Your task to perform on an android device: open app "eBay: The shopping marketplace" Image 0: 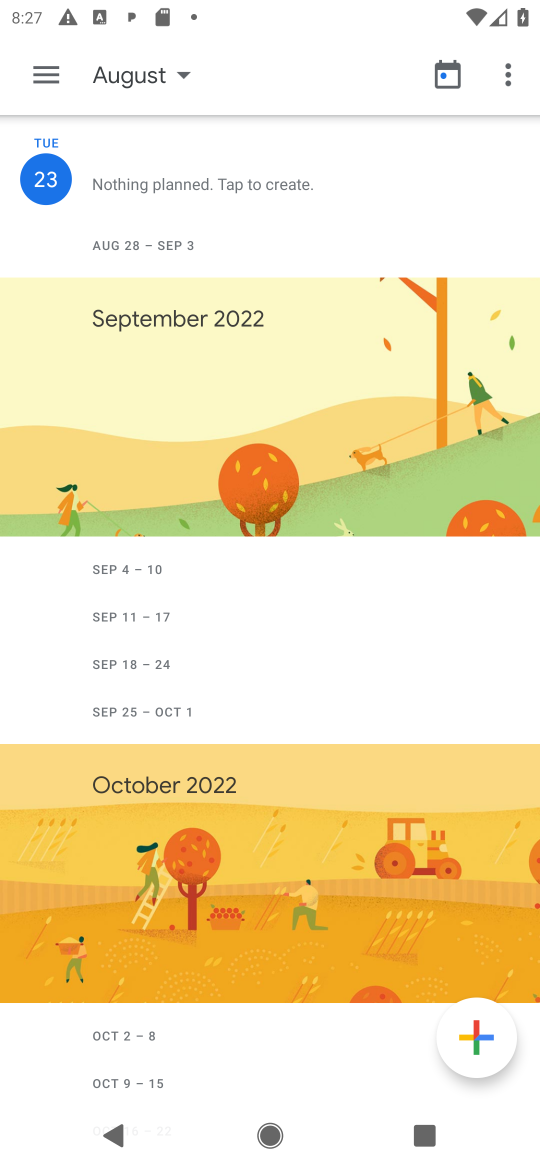
Step 0: press home button
Your task to perform on an android device: open app "eBay: The shopping marketplace" Image 1: 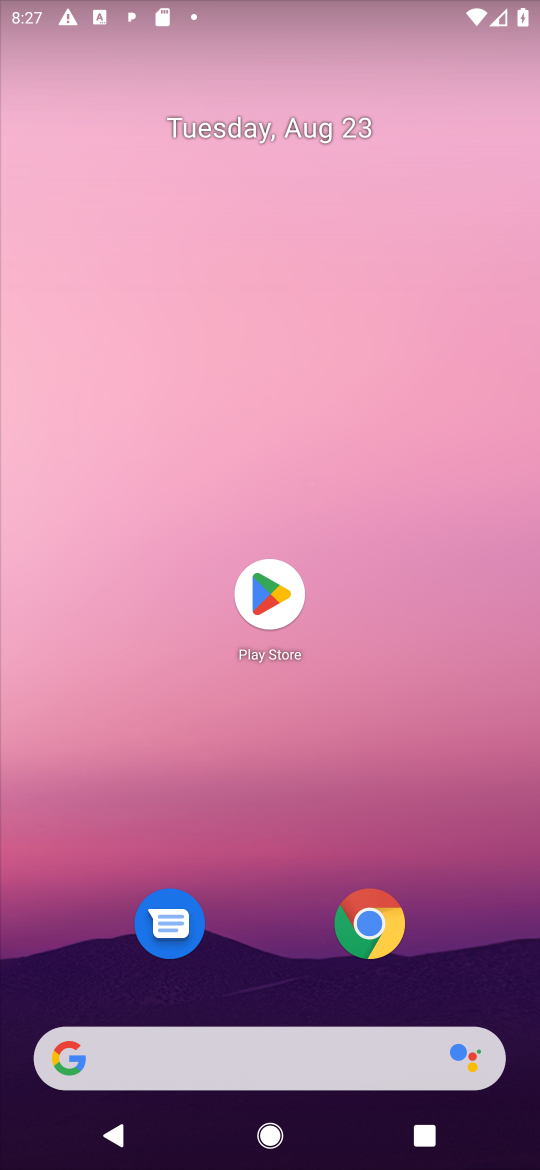
Step 1: click (271, 599)
Your task to perform on an android device: open app "eBay: The shopping marketplace" Image 2: 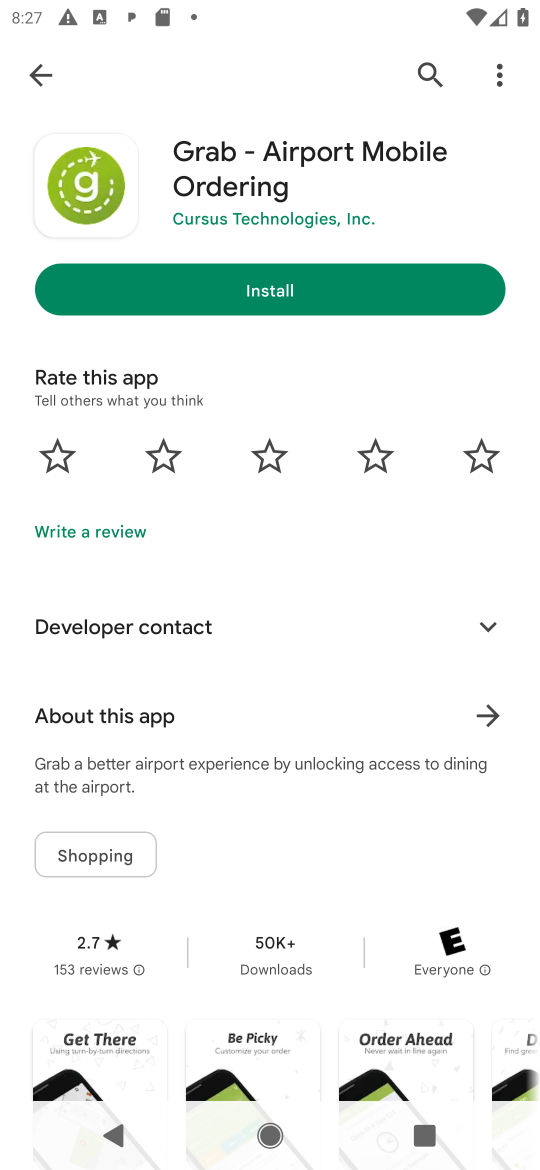
Step 2: click (424, 76)
Your task to perform on an android device: open app "eBay: The shopping marketplace" Image 3: 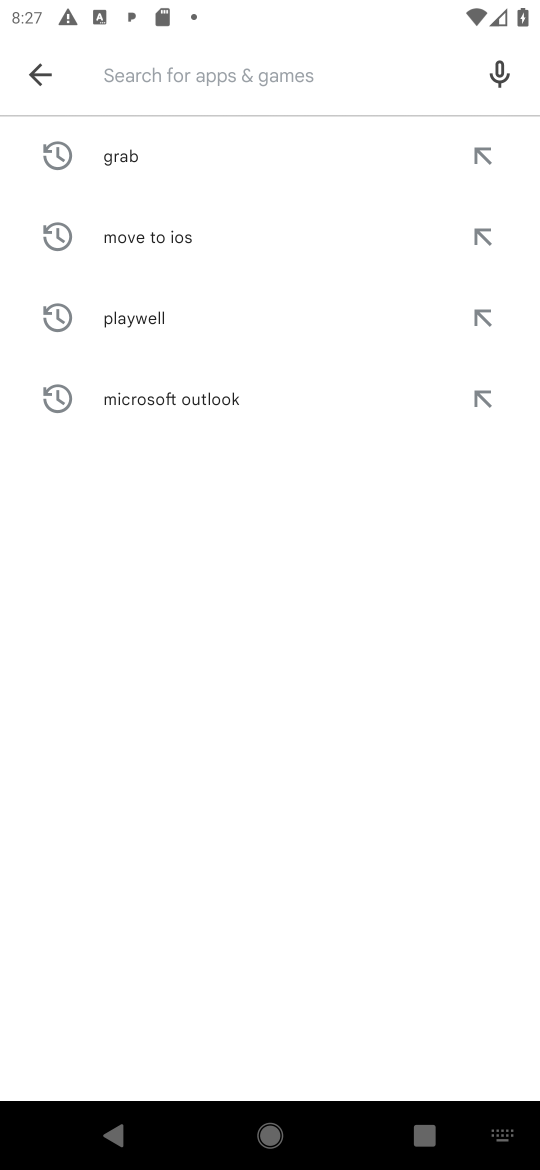
Step 3: type "eBay: The shopping marketplace"
Your task to perform on an android device: open app "eBay: The shopping marketplace" Image 4: 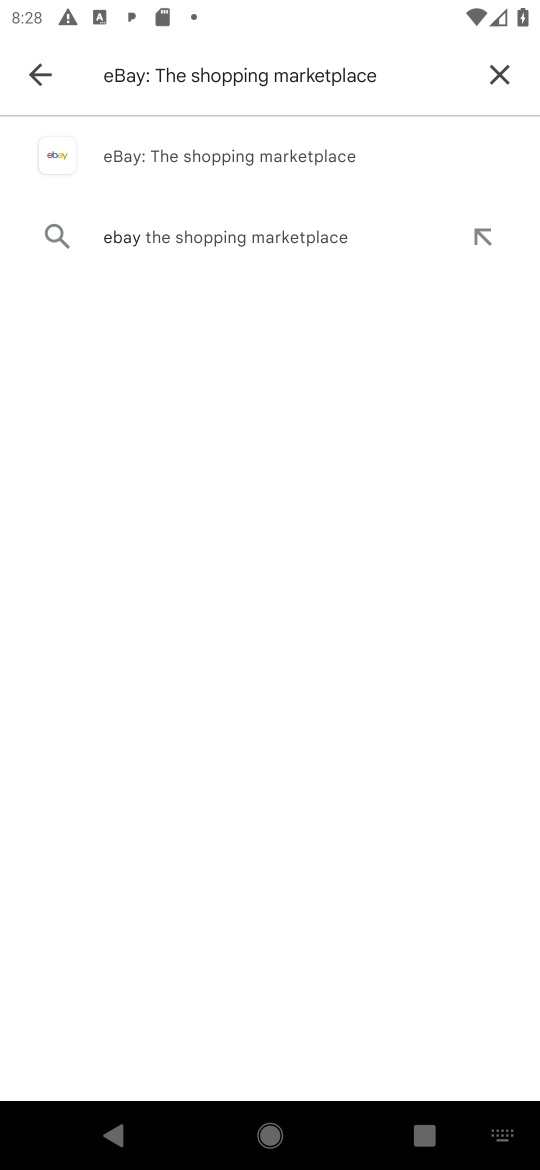
Step 4: click (229, 160)
Your task to perform on an android device: open app "eBay: The shopping marketplace" Image 5: 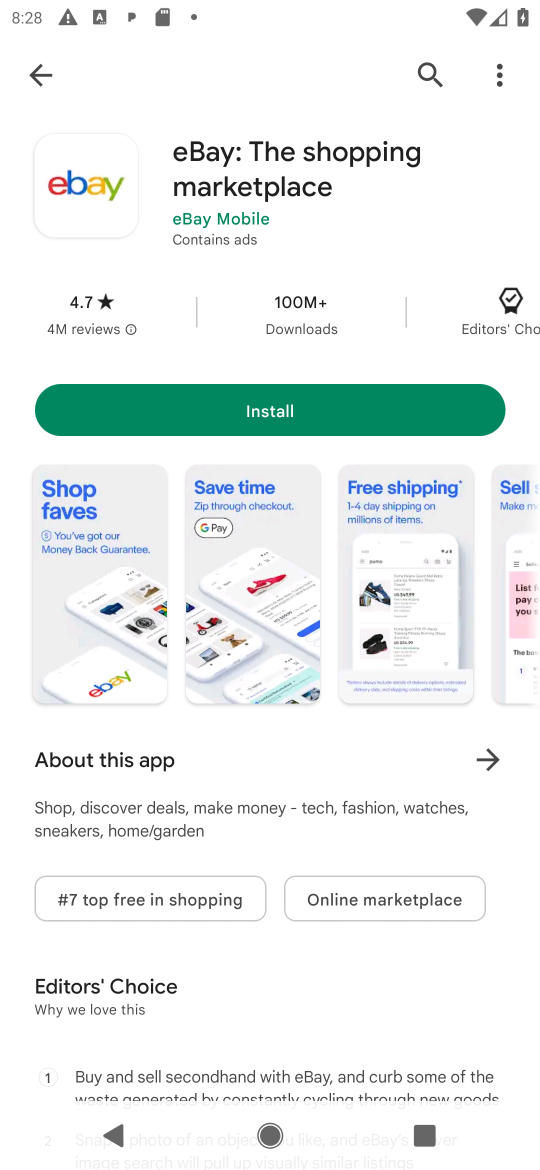
Step 5: task complete